Your task to perform on an android device: Go to battery settings Image 0: 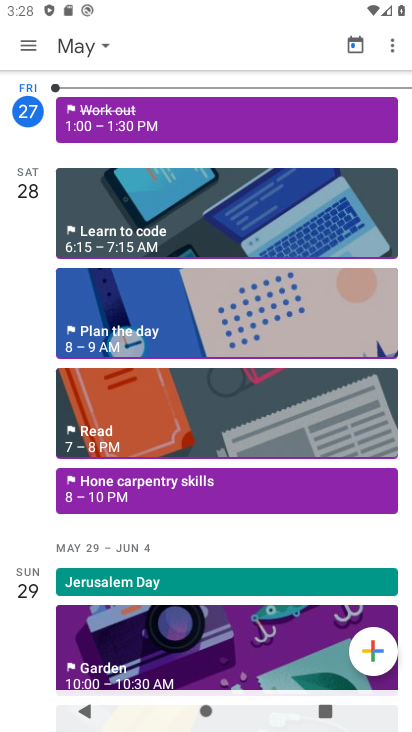
Step 0: press home button
Your task to perform on an android device: Go to battery settings Image 1: 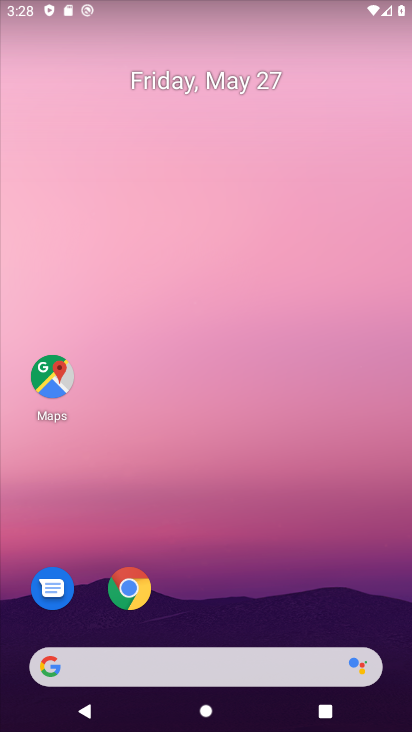
Step 1: drag from (224, 635) to (260, 9)
Your task to perform on an android device: Go to battery settings Image 2: 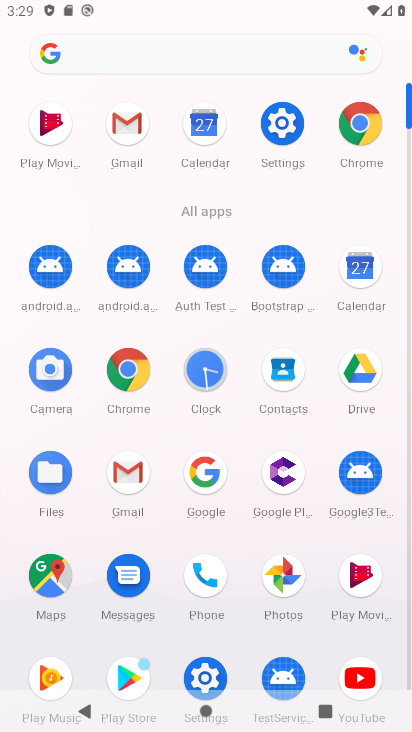
Step 2: click (188, 670)
Your task to perform on an android device: Go to battery settings Image 3: 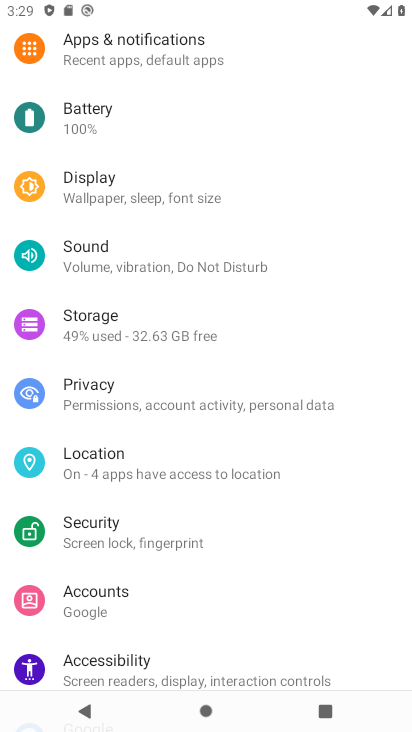
Step 3: click (97, 125)
Your task to perform on an android device: Go to battery settings Image 4: 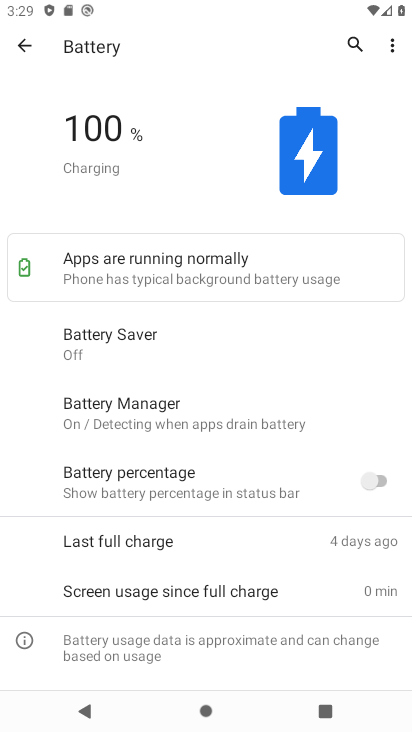
Step 4: task complete